Your task to perform on an android device: open a bookmark in the chrome app Image 0: 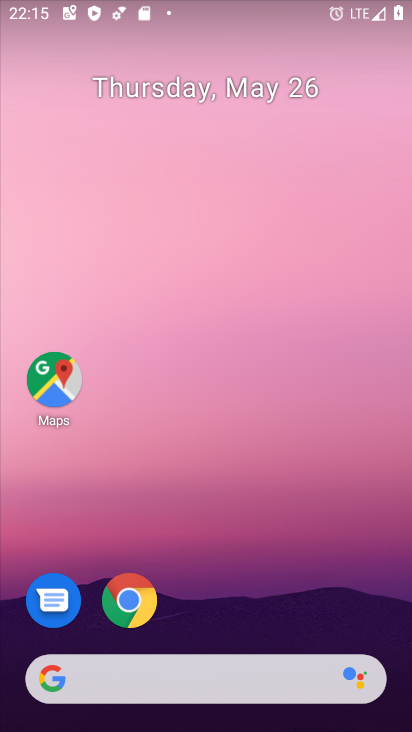
Step 0: click (139, 602)
Your task to perform on an android device: open a bookmark in the chrome app Image 1: 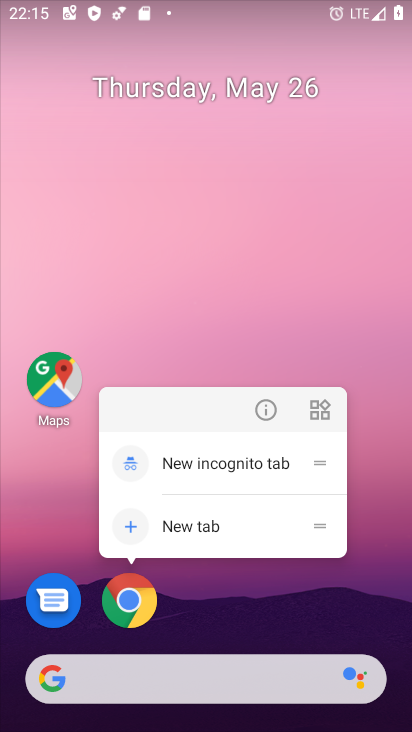
Step 1: click (124, 598)
Your task to perform on an android device: open a bookmark in the chrome app Image 2: 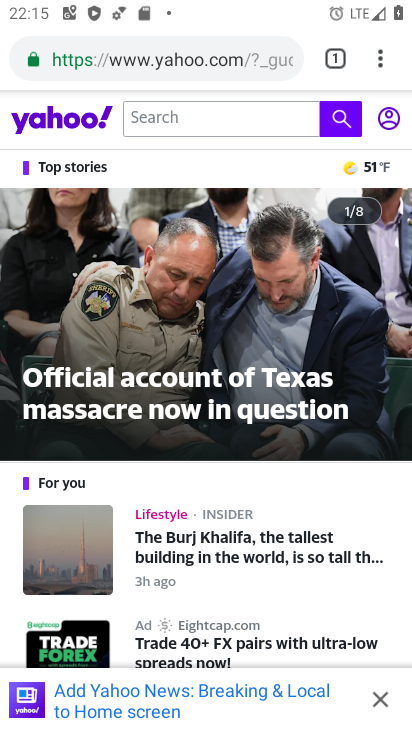
Step 2: task complete